Your task to perform on an android device: Go to location settings Image 0: 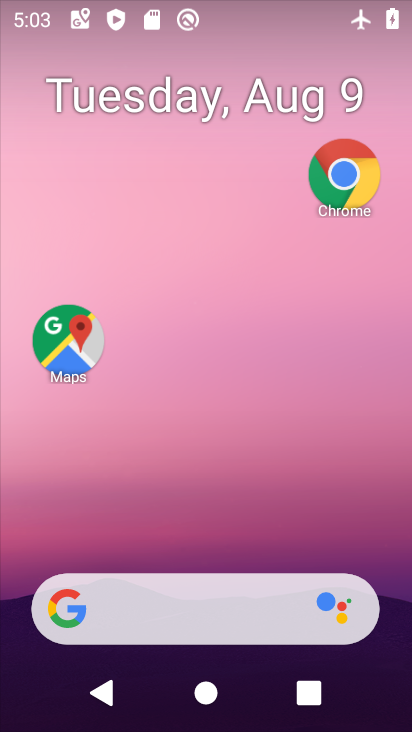
Step 0: drag from (222, 525) to (228, 36)
Your task to perform on an android device: Go to location settings Image 1: 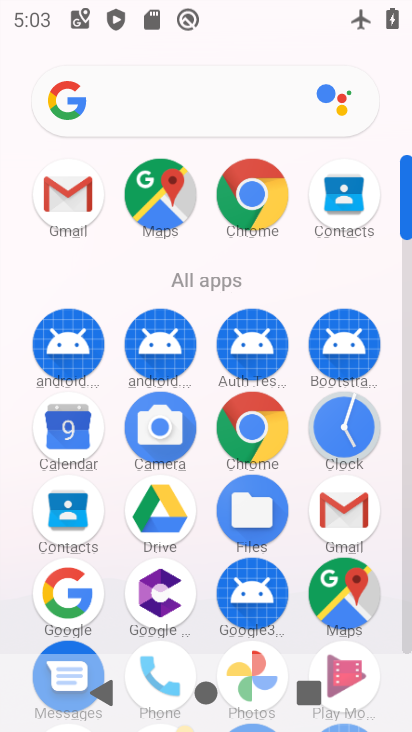
Step 1: drag from (211, 609) to (190, 149)
Your task to perform on an android device: Go to location settings Image 2: 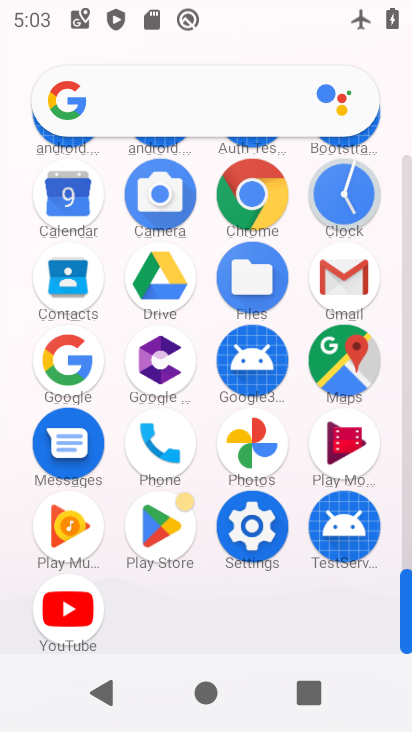
Step 2: click (246, 529)
Your task to perform on an android device: Go to location settings Image 3: 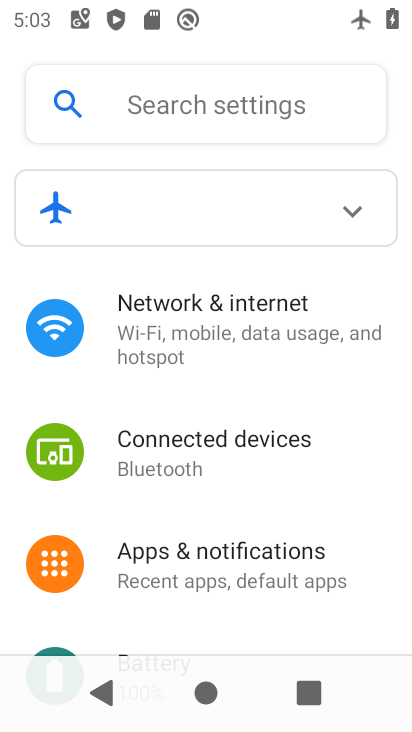
Step 3: drag from (210, 536) to (246, 89)
Your task to perform on an android device: Go to location settings Image 4: 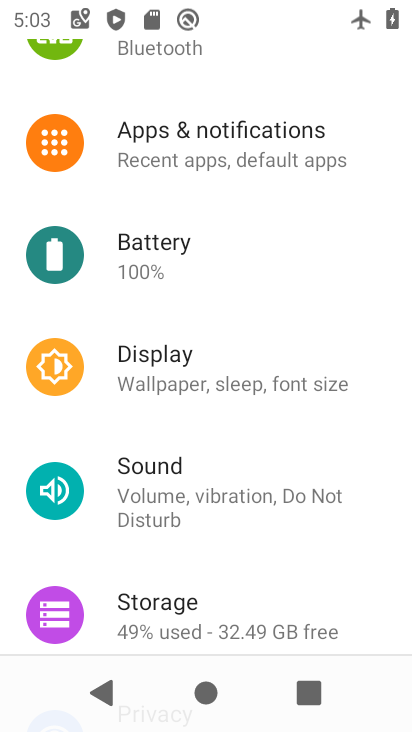
Step 4: drag from (210, 461) to (263, 100)
Your task to perform on an android device: Go to location settings Image 5: 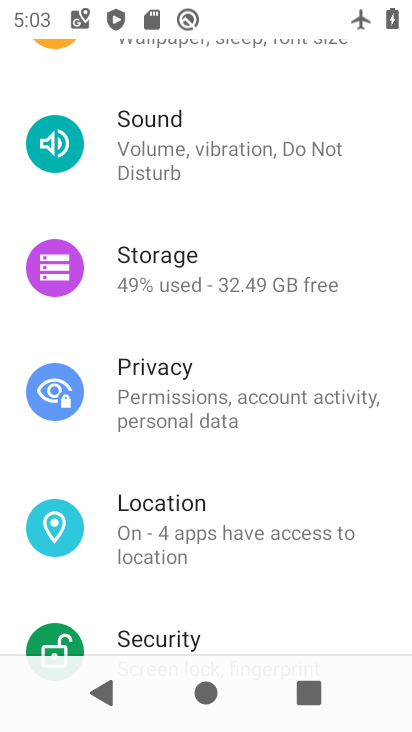
Step 5: drag from (250, 518) to (262, 175)
Your task to perform on an android device: Go to location settings Image 6: 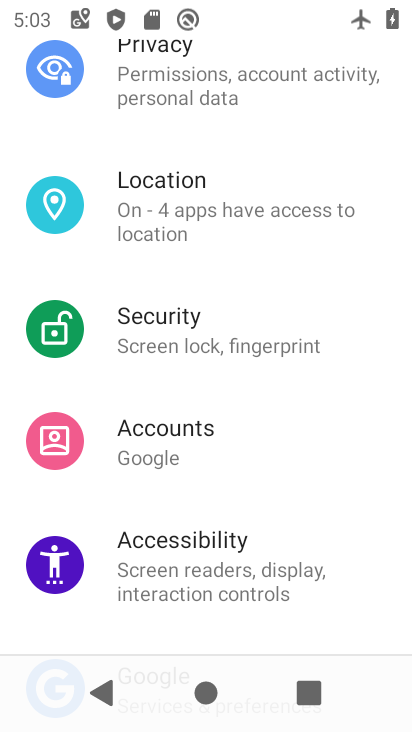
Step 6: click (203, 173)
Your task to perform on an android device: Go to location settings Image 7: 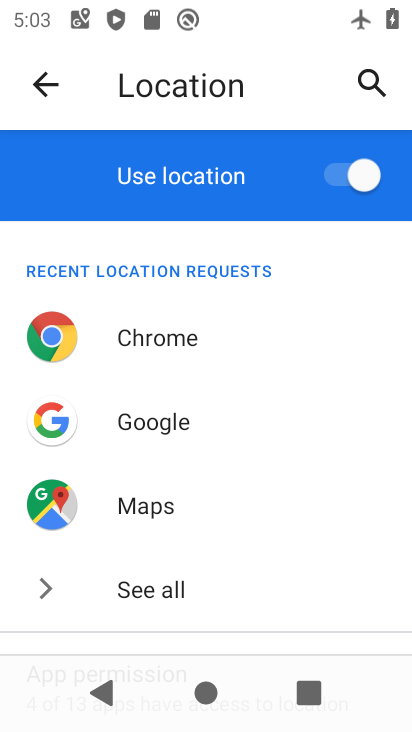
Step 7: task complete